Your task to perform on an android device: Go to Android settings Image 0: 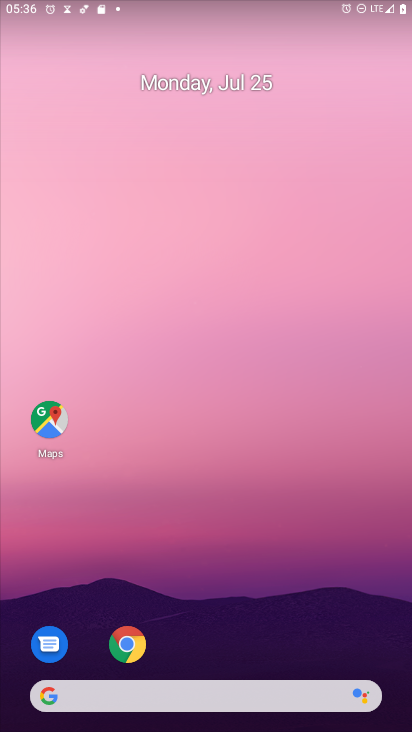
Step 0: drag from (277, 585) to (298, 143)
Your task to perform on an android device: Go to Android settings Image 1: 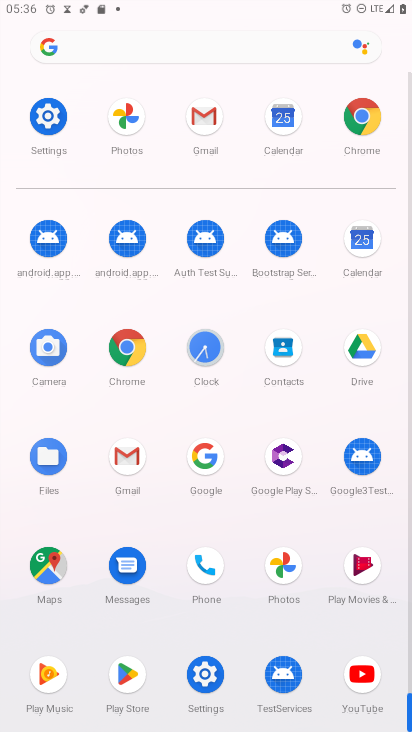
Step 1: click (46, 116)
Your task to perform on an android device: Go to Android settings Image 2: 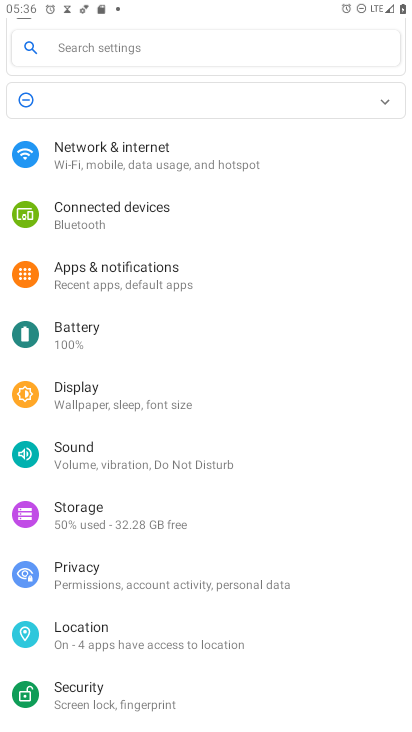
Step 2: task complete